Your task to perform on an android device: Open privacy settings Image 0: 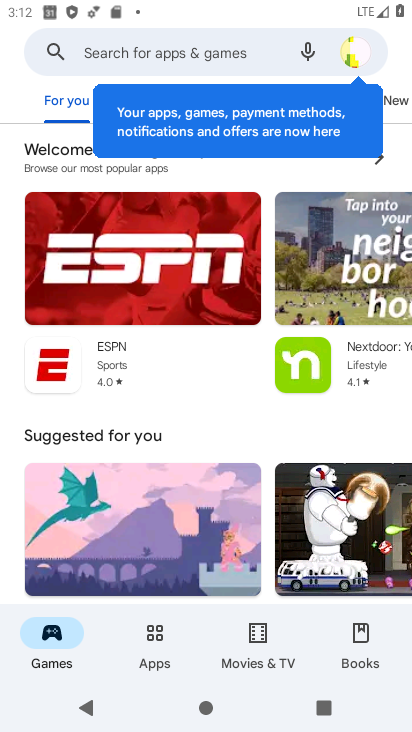
Step 0: press back button
Your task to perform on an android device: Open privacy settings Image 1: 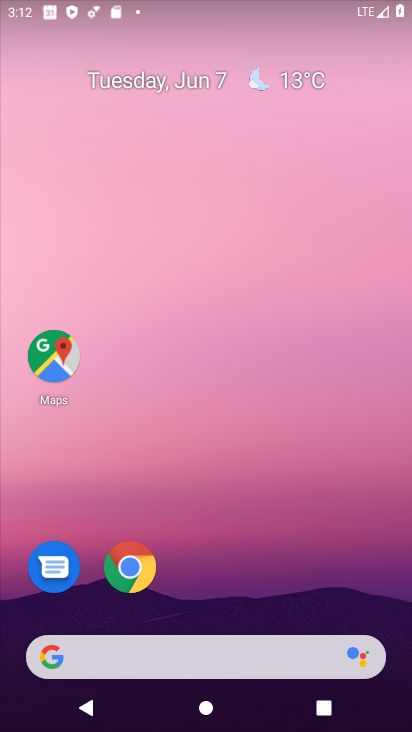
Step 1: drag from (198, 573) to (265, 1)
Your task to perform on an android device: Open privacy settings Image 2: 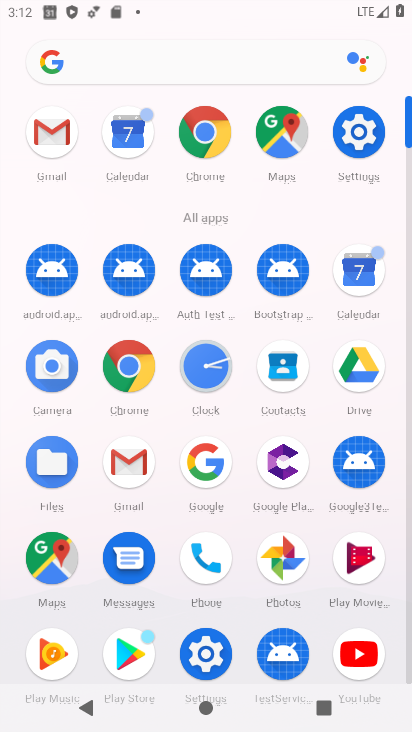
Step 2: click (370, 122)
Your task to perform on an android device: Open privacy settings Image 3: 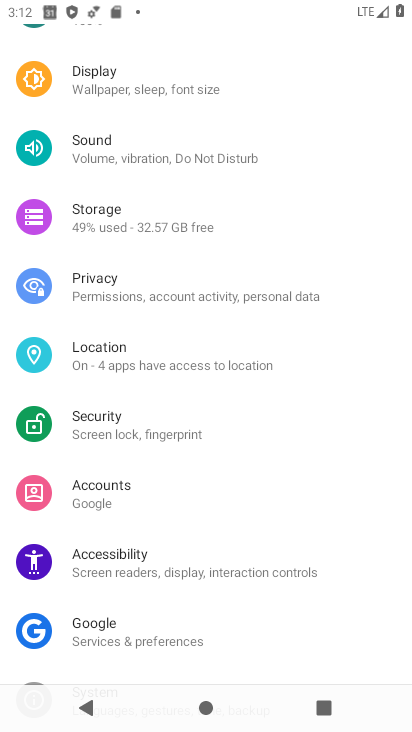
Step 3: click (111, 278)
Your task to perform on an android device: Open privacy settings Image 4: 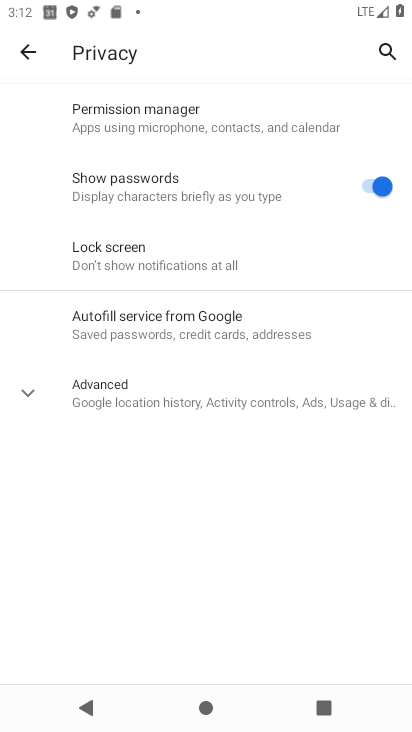
Step 4: task complete